Your task to perform on an android device: Go to notification settings Image 0: 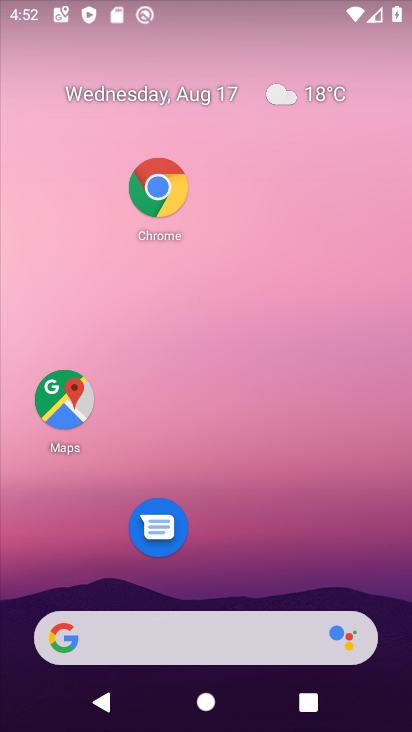
Step 0: drag from (95, 602) to (116, 178)
Your task to perform on an android device: Go to notification settings Image 1: 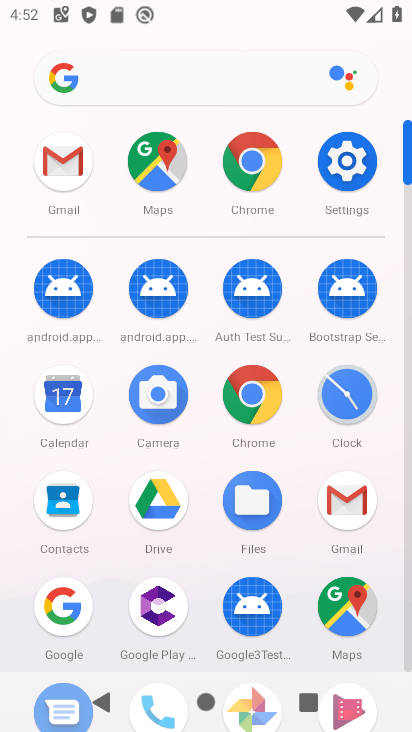
Step 1: click (343, 134)
Your task to perform on an android device: Go to notification settings Image 2: 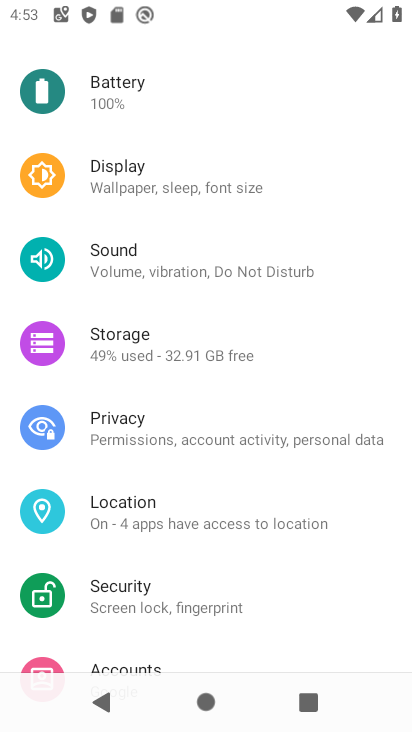
Step 2: click (180, 555)
Your task to perform on an android device: Go to notification settings Image 3: 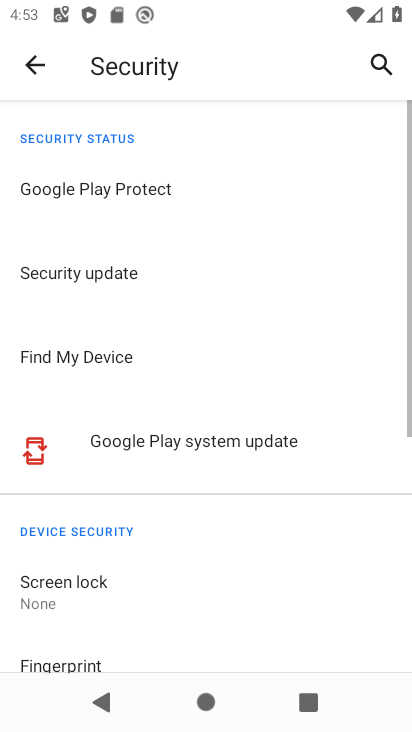
Step 3: drag from (147, 104) to (106, 529)
Your task to perform on an android device: Go to notification settings Image 4: 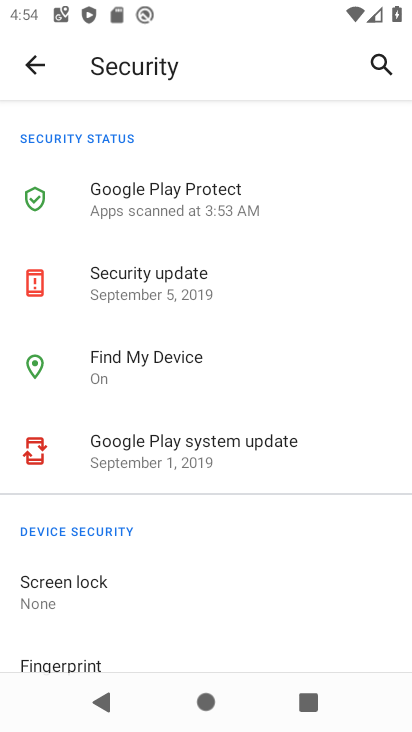
Step 4: click (47, 65)
Your task to perform on an android device: Go to notification settings Image 5: 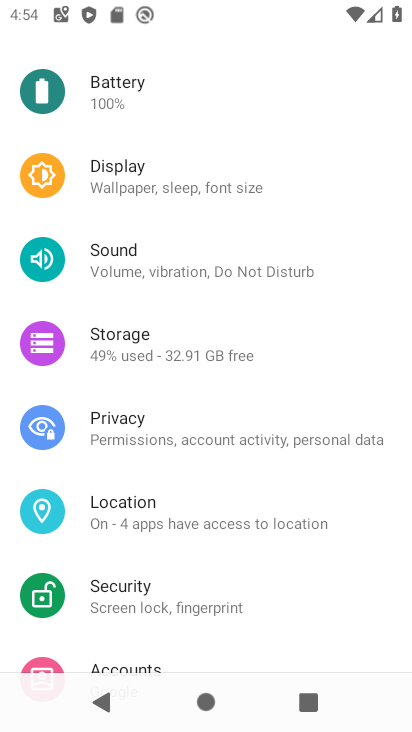
Step 5: drag from (172, 402) to (201, 563)
Your task to perform on an android device: Go to notification settings Image 6: 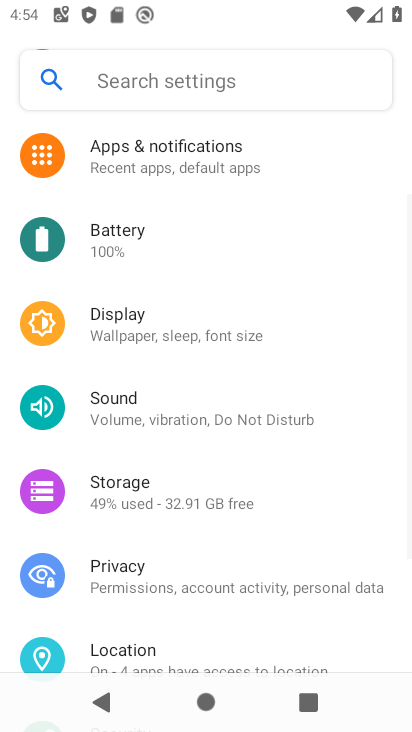
Step 6: drag from (149, 219) to (150, 614)
Your task to perform on an android device: Go to notification settings Image 7: 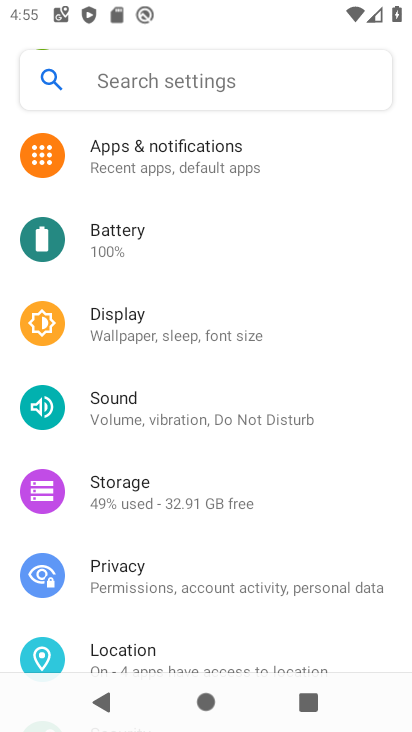
Step 7: click (152, 192)
Your task to perform on an android device: Go to notification settings Image 8: 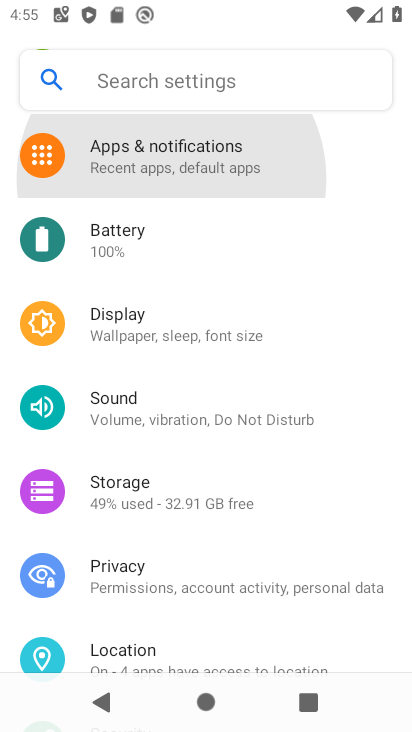
Step 8: click (161, 162)
Your task to perform on an android device: Go to notification settings Image 9: 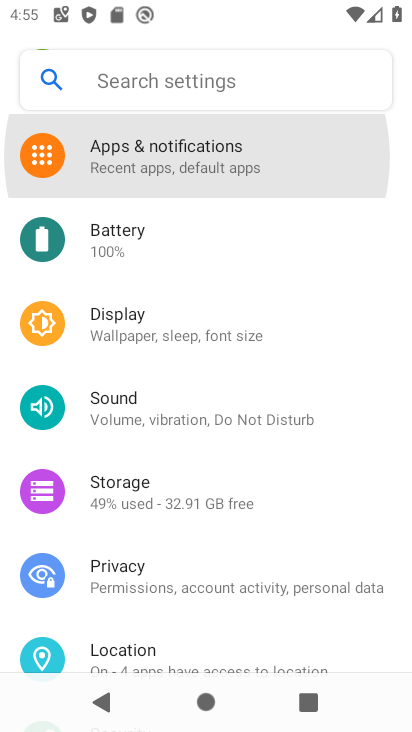
Step 9: click (161, 162)
Your task to perform on an android device: Go to notification settings Image 10: 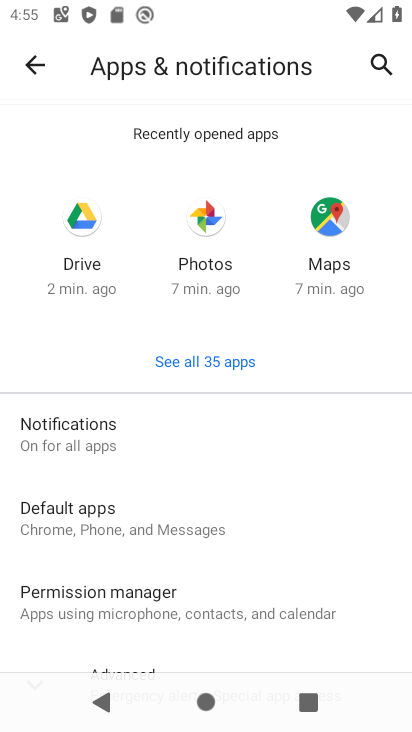
Step 10: task complete